Your task to perform on an android device: turn on showing notifications on the lock screen Image 0: 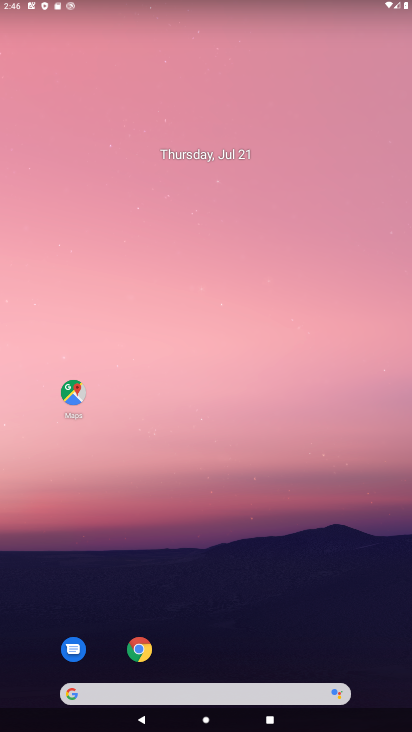
Step 0: drag from (213, 538) to (279, 122)
Your task to perform on an android device: turn on showing notifications on the lock screen Image 1: 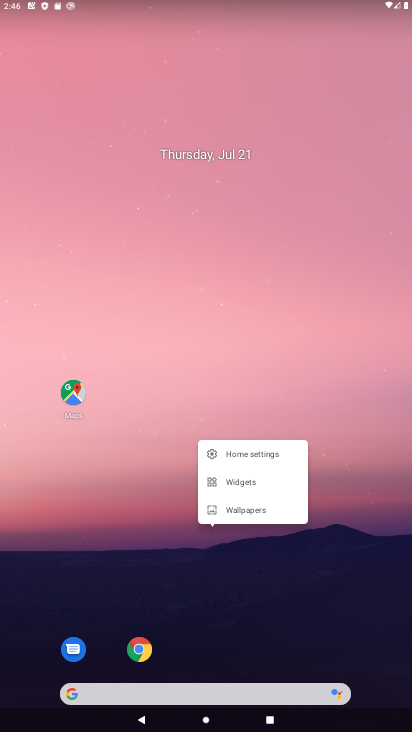
Step 1: click (255, 231)
Your task to perform on an android device: turn on showing notifications on the lock screen Image 2: 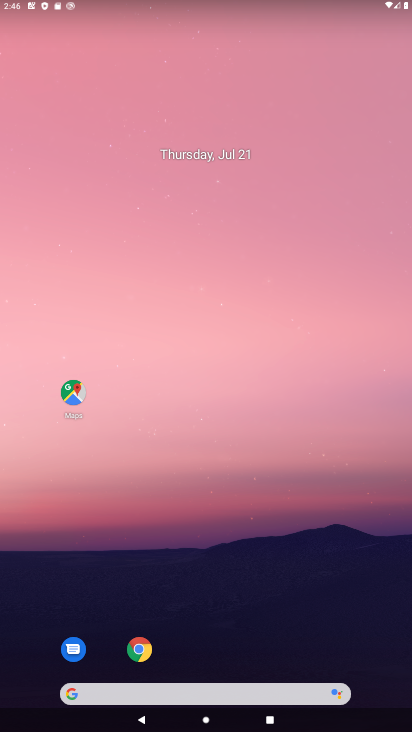
Step 2: task complete